Your task to perform on an android device: move an email to a new category in the gmail app Image 0: 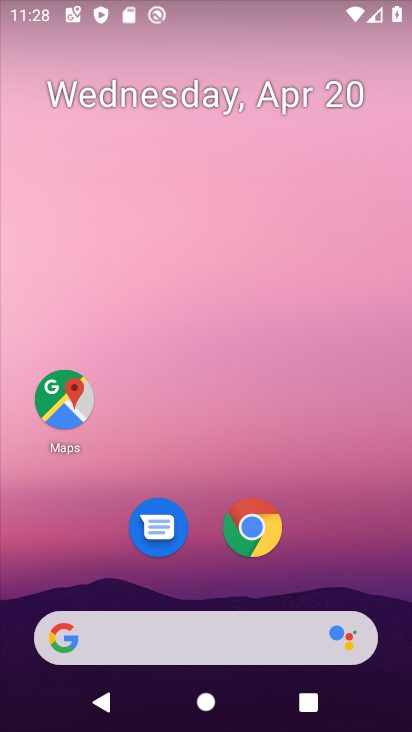
Step 0: drag from (351, 563) to (283, 44)
Your task to perform on an android device: move an email to a new category in the gmail app Image 1: 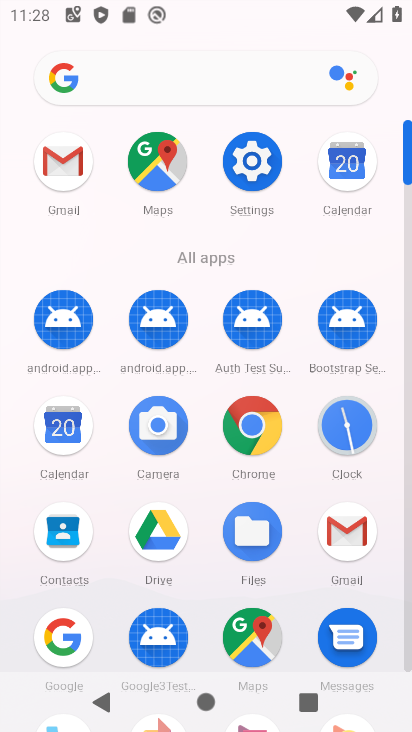
Step 1: click (352, 542)
Your task to perform on an android device: move an email to a new category in the gmail app Image 2: 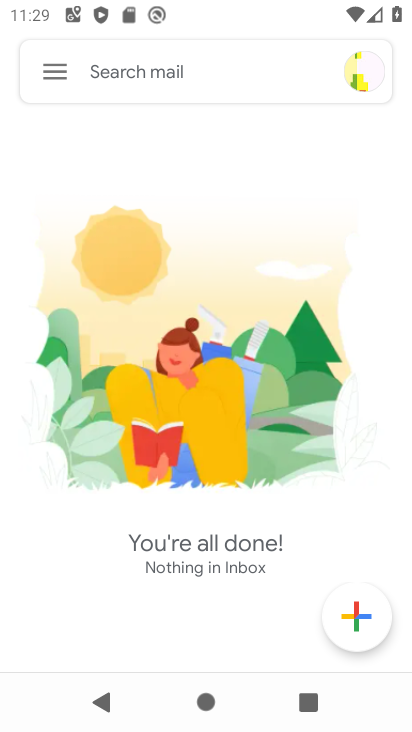
Step 2: click (52, 68)
Your task to perform on an android device: move an email to a new category in the gmail app Image 3: 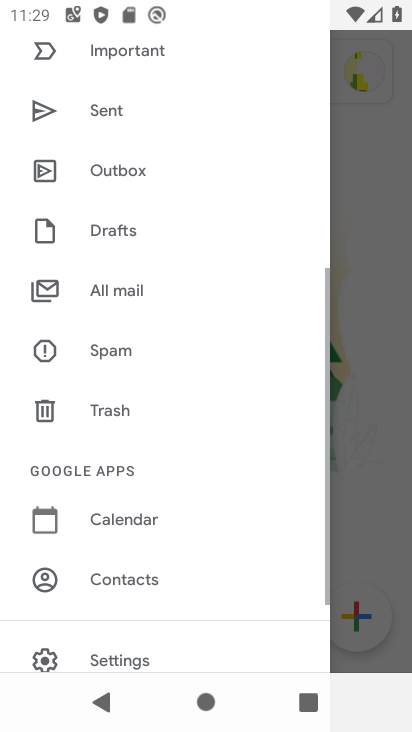
Step 3: click (131, 300)
Your task to perform on an android device: move an email to a new category in the gmail app Image 4: 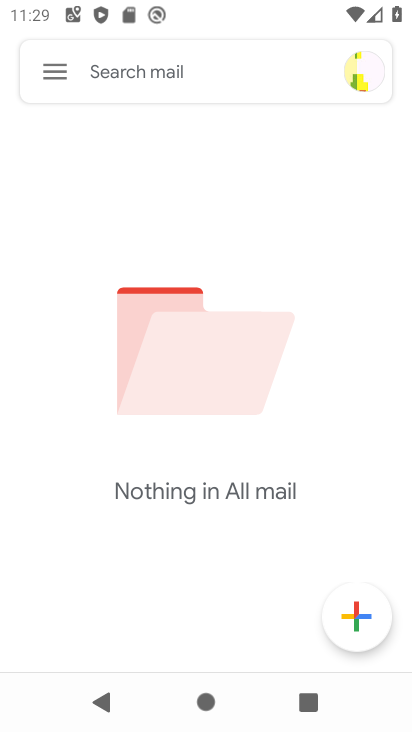
Step 4: task complete